Your task to perform on an android device: Open the map Image 0: 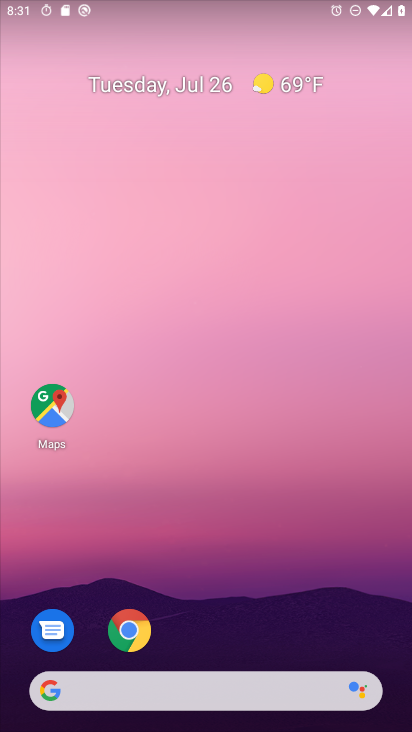
Step 0: drag from (216, 615) to (282, 148)
Your task to perform on an android device: Open the map Image 1: 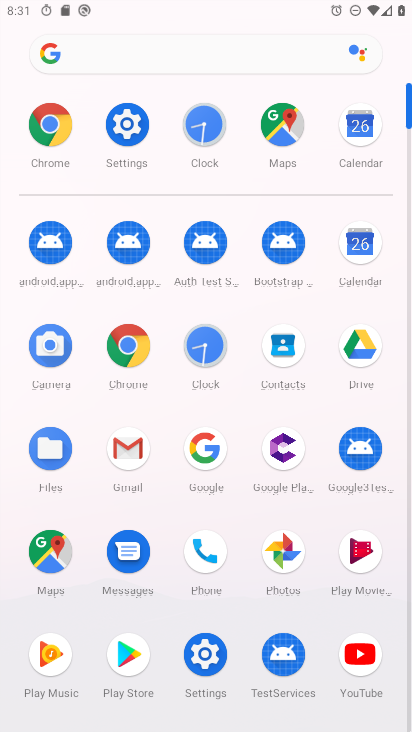
Step 1: click (45, 561)
Your task to perform on an android device: Open the map Image 2: 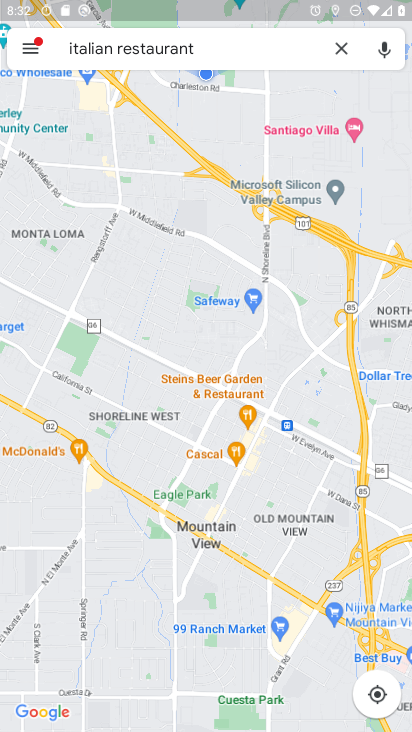
Step 2: click (338, 56)
Your task to perform on an android device: Open the map Image 3: 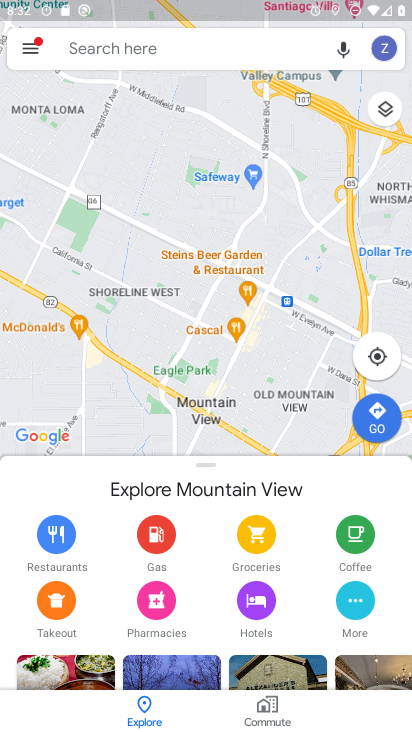
Step 3: task complete